Your task to perform on an android device: Clear the cart on amazon.com. Add "apple airpods" to the cart on amazon.com, then select checkout. Image 0: 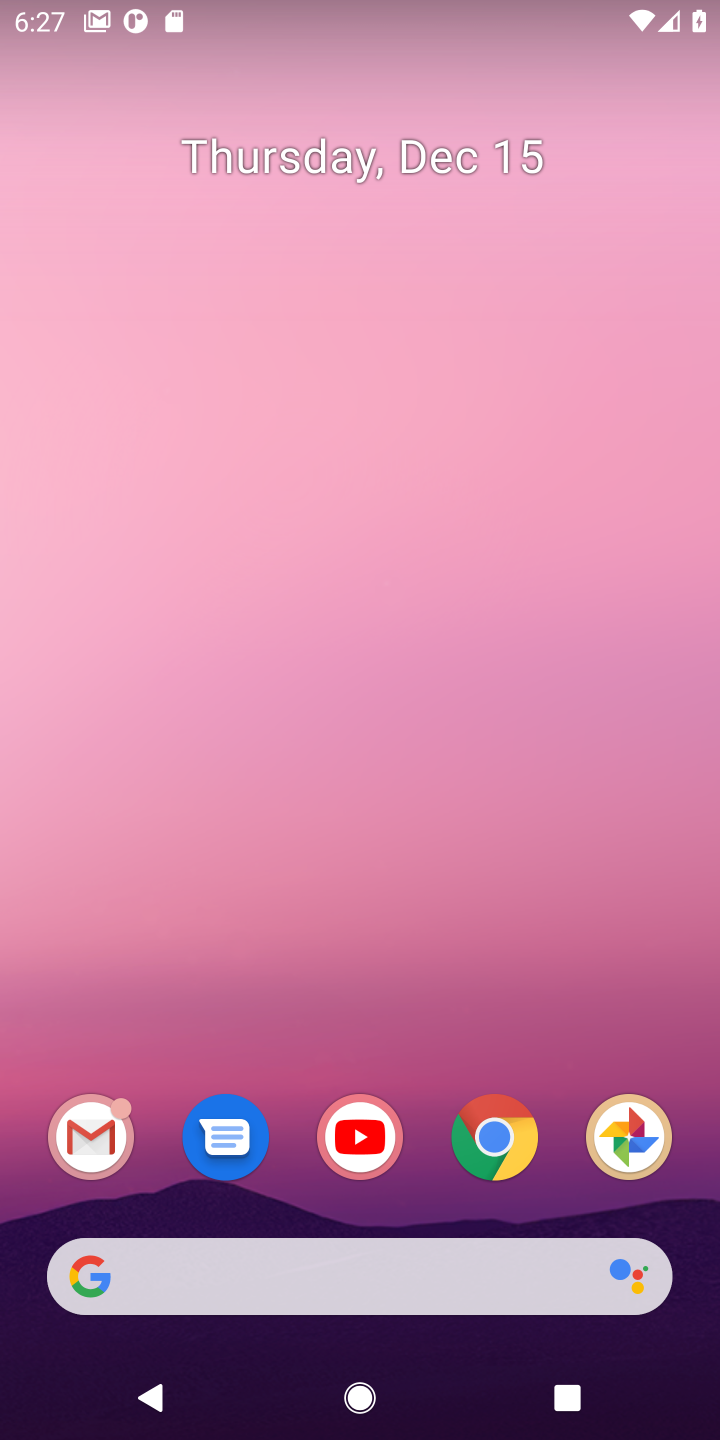
Step 0: drag from (293, 1148) to (319, 542)
Your task to perform on an android device: Clear the cart on amazon.com. Add "apple airpods" to the cart on amazon.com, then select checkout. Image 1: 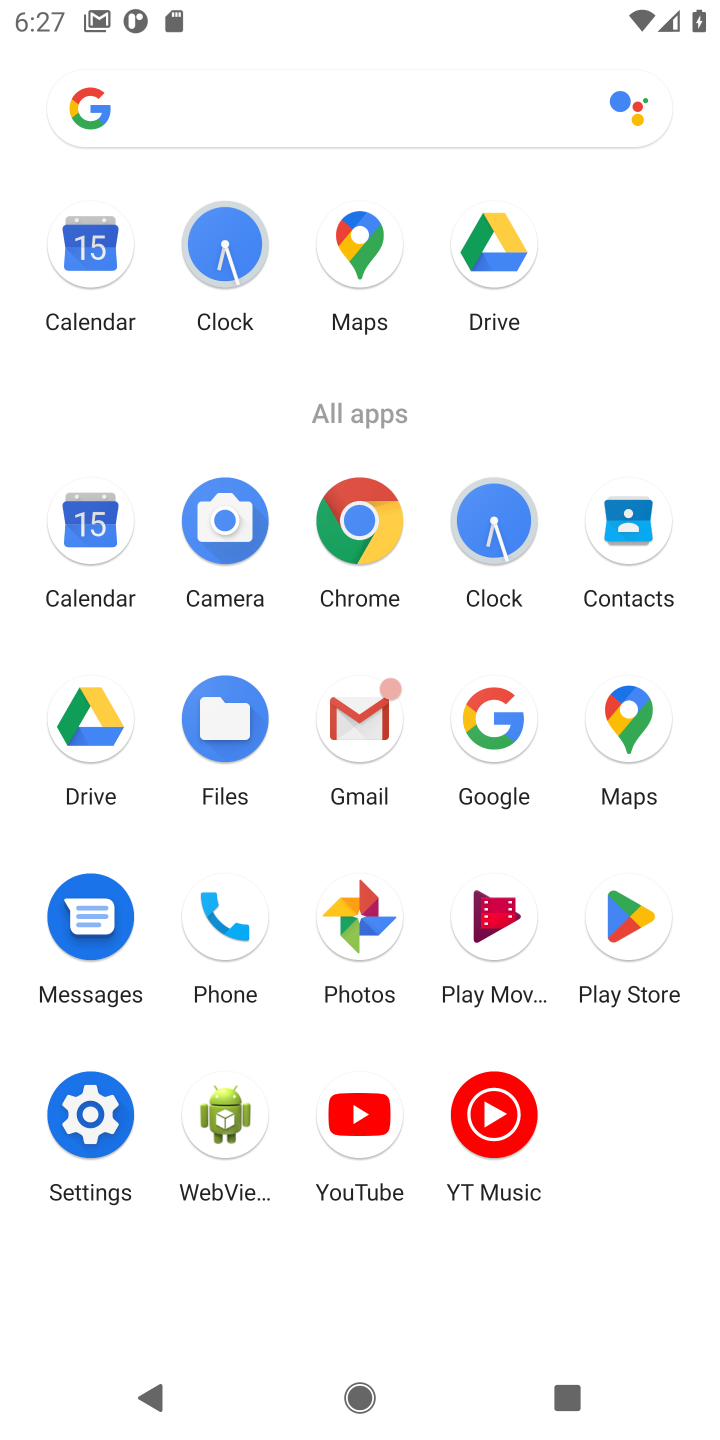
Step 1: click (470, 726)
Your task to perform on an android device: Clear the cart on amazon.com. Add "apple airpods" to the cart on amazon.com, then select checkout. Image 2: 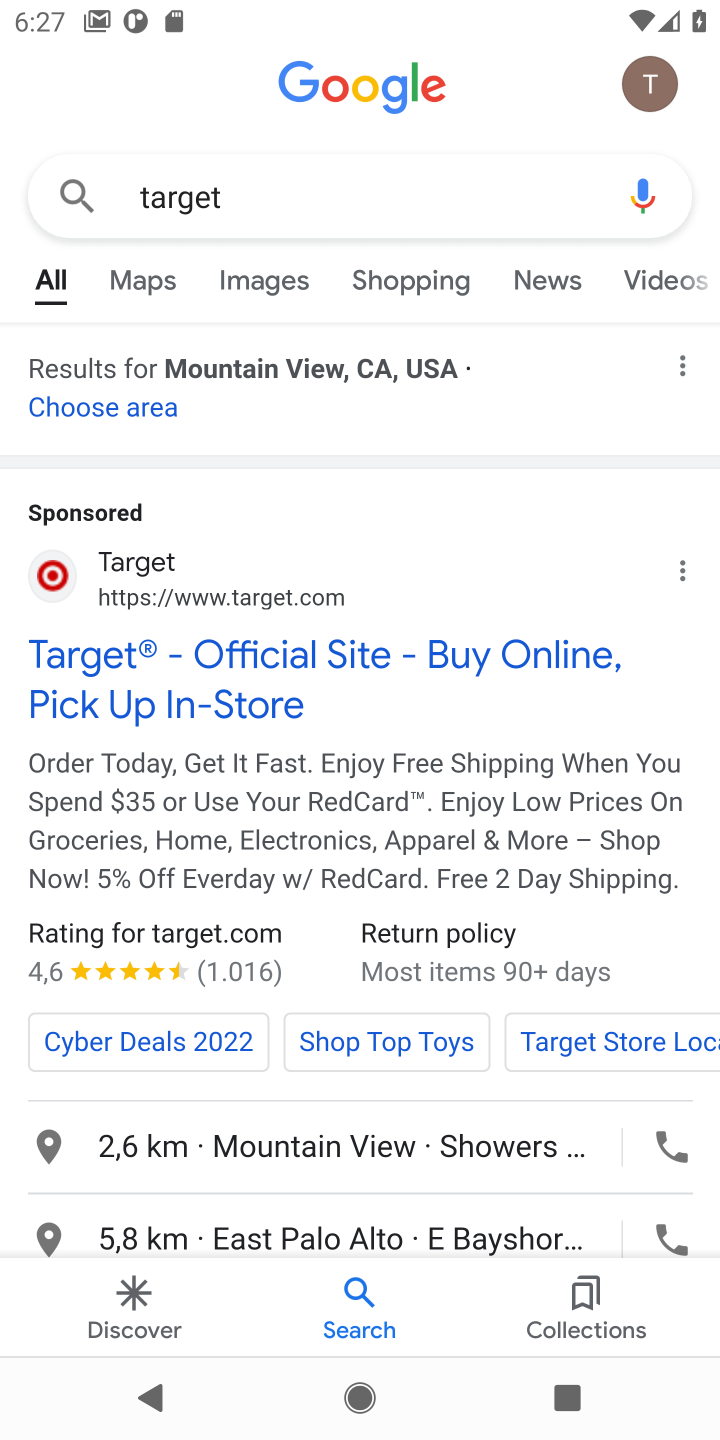
Step 2: click (190, 204)
Your task to perform on an android device: Clear the cart on amazon.com. Add "apple airpods" to the cart on amazon.com, then select checkout. Image 3: 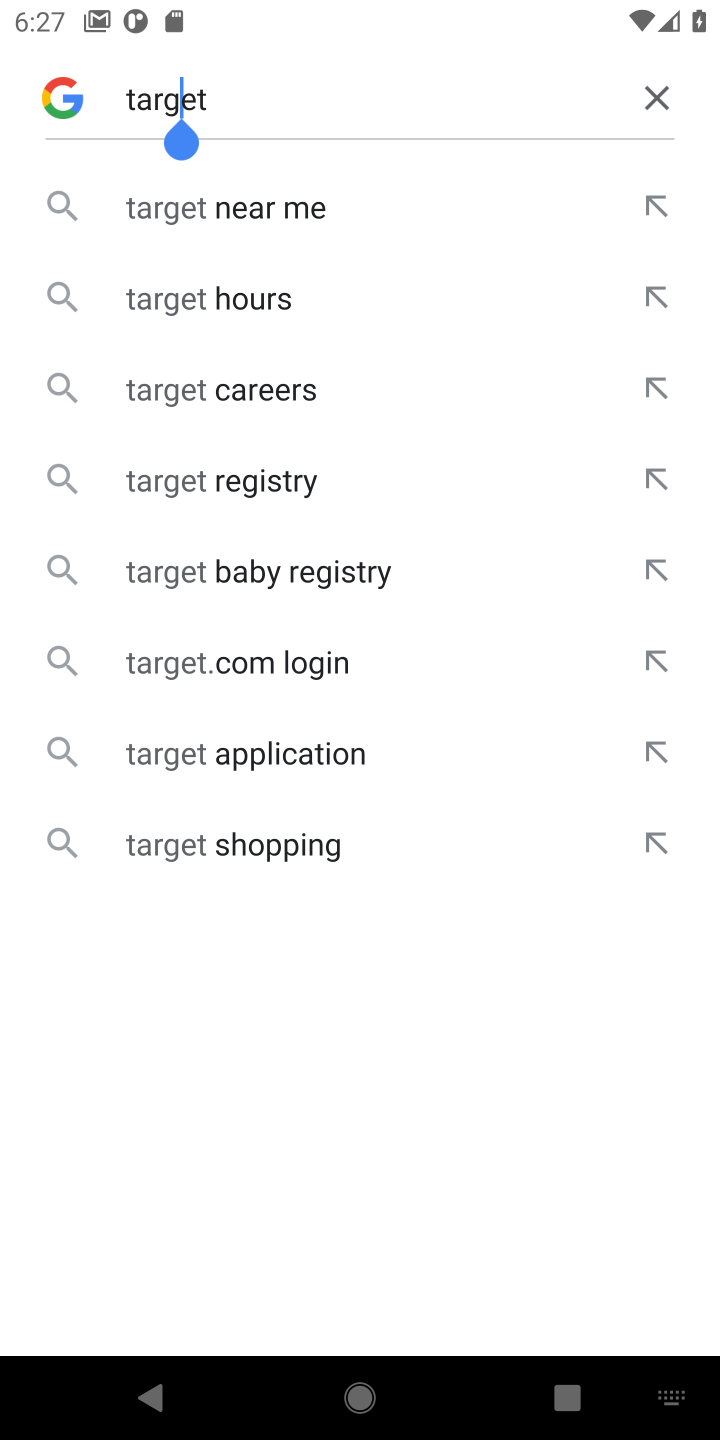
Step 3: click (653, 111)
Your task to perform on an android device: Clear the cart on amazon.com. Add "apple airpods" to the cart on amazon.com, then select checkout. Image 4: 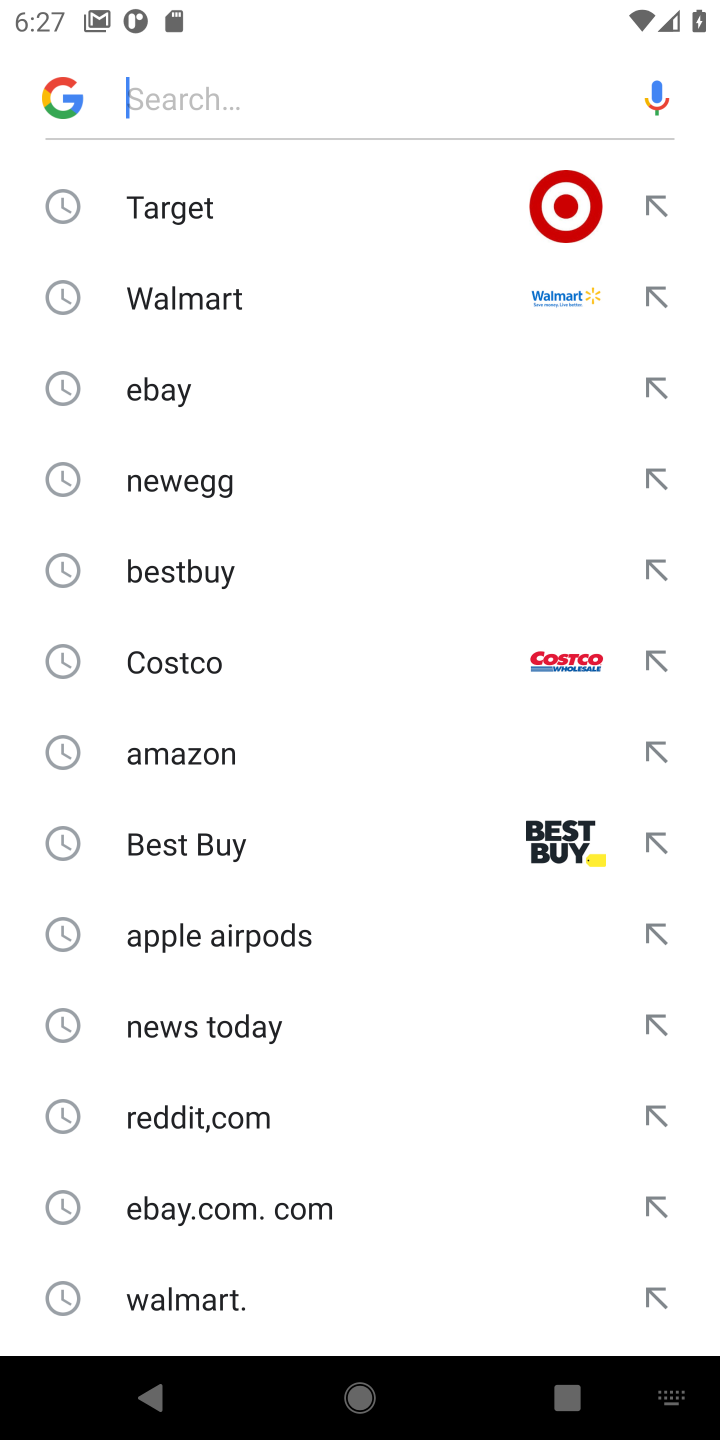
Step 4: click (172, 762)
Your task to perform on an android device: Clear the cart on amazon.com. Add "apple airpods" to the cart on amazon.com, then select checkout. Image 5: 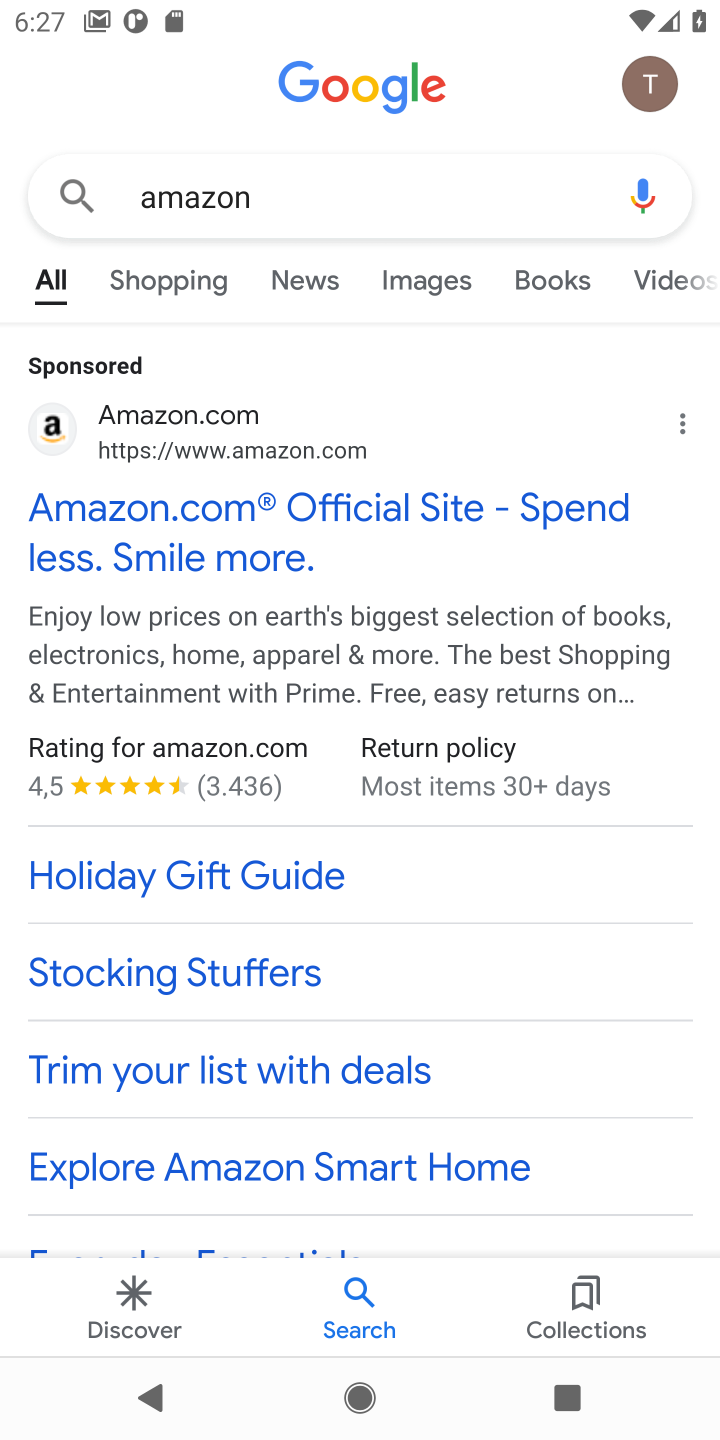
Step 5: click (178, 547)
Your task to perform on an android device: Clear the cart on amazon.com. Add "apple airpods" to the cart on amazon.com, then select checkout. Image 6: 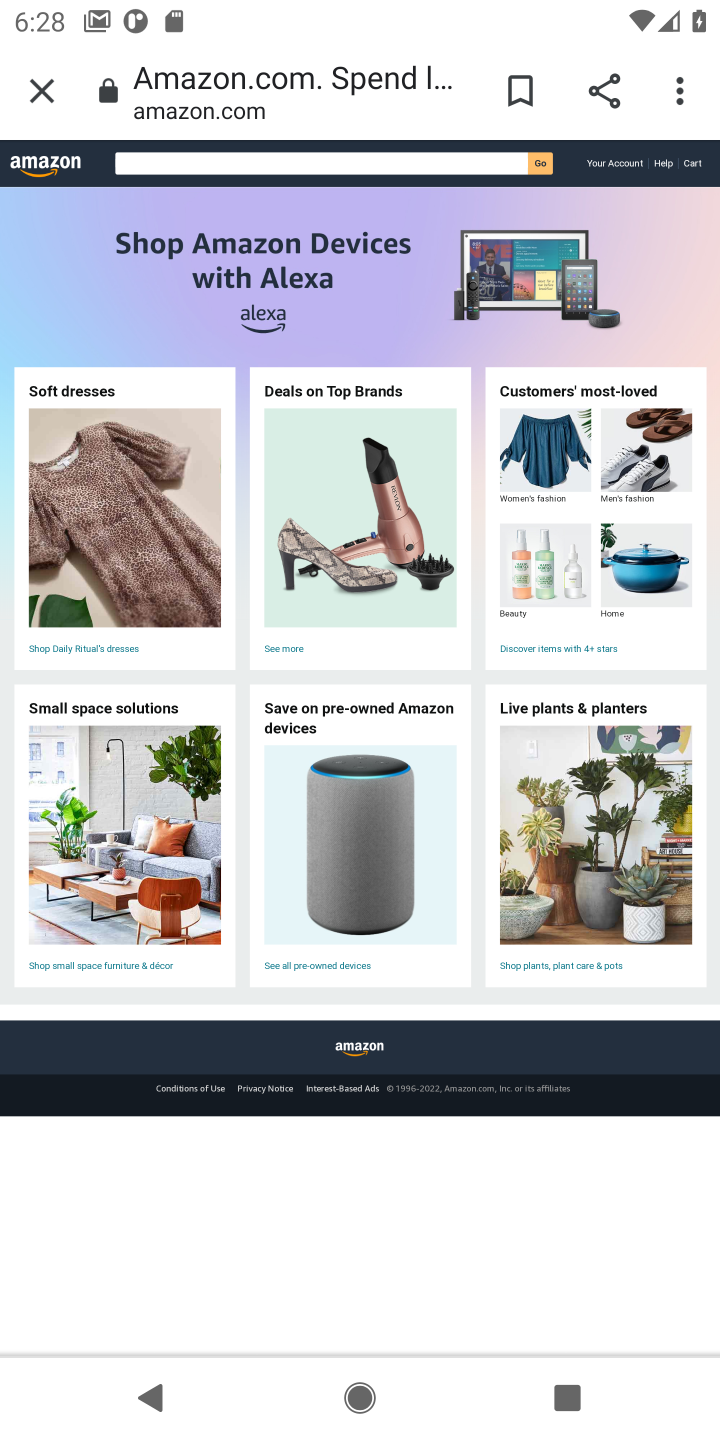
Step 6: click (186, 171)
Your task to perform on an android device: Clear the cart on amazon.com. Add "apple airpods" to the cart on amazon.com, then select checkout. Image 7: 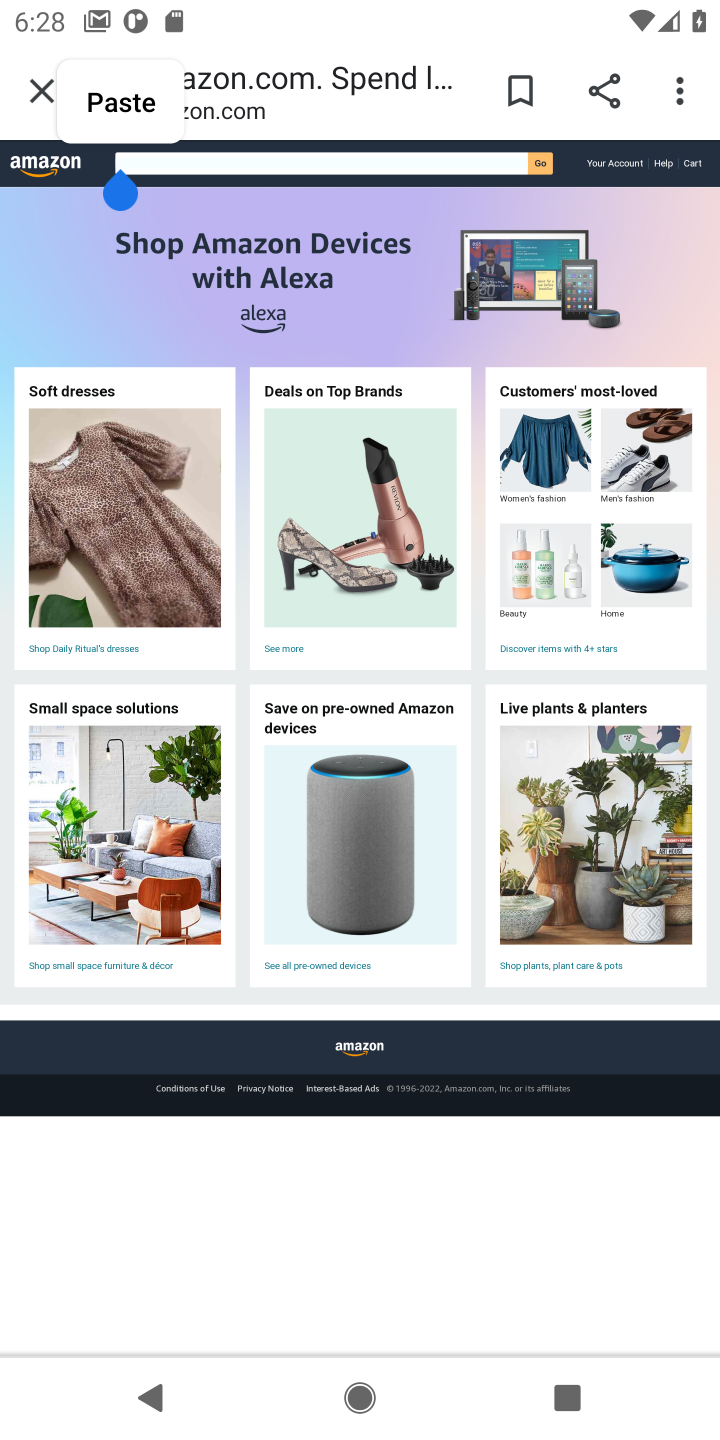
Step 7: type "apple airpods"
Your task to perform on an android device: Clear the cart on amazon.com. Add "apple airpods" to the cart on amazon.com, then select checkout. Image 8: 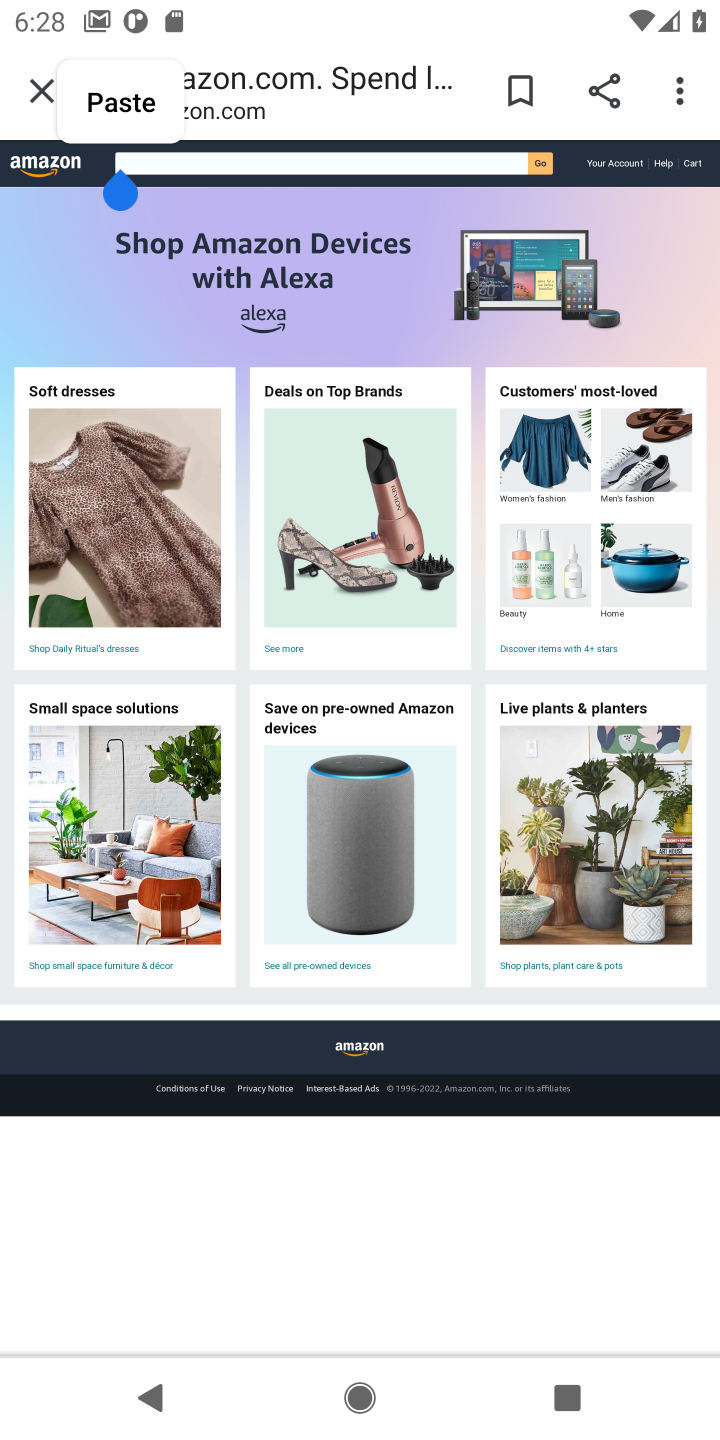
Step 8: click (539, 159)
Your task to perform on an android device: Clear the cart on amazon.com. Add "apple airpods" to the cart on amazon.com, then select checkout. Image 9: 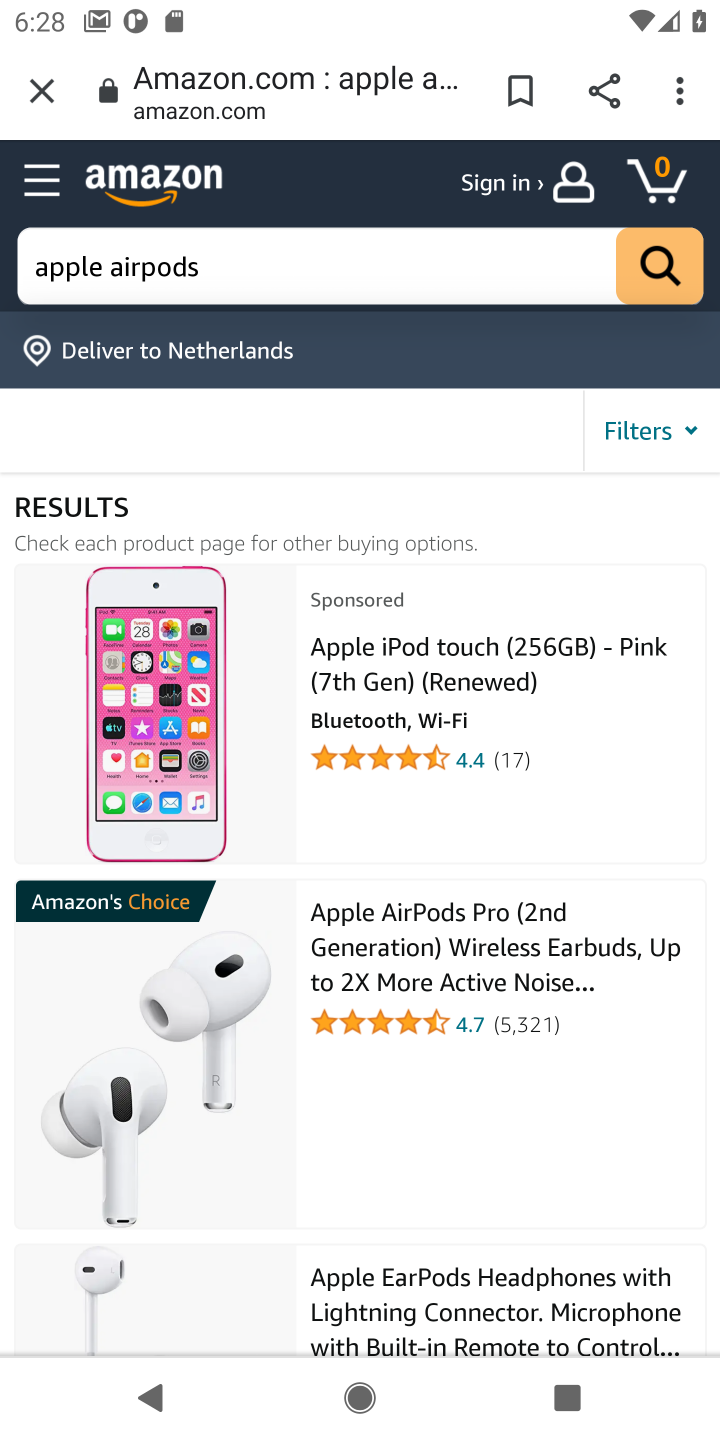
Step 9: click (474, 971)
Your task to perform on an android device: Clear the cart on amazon.com. Add "apple airpods" to the cart on amazon.com, then select checkout. Image 10: 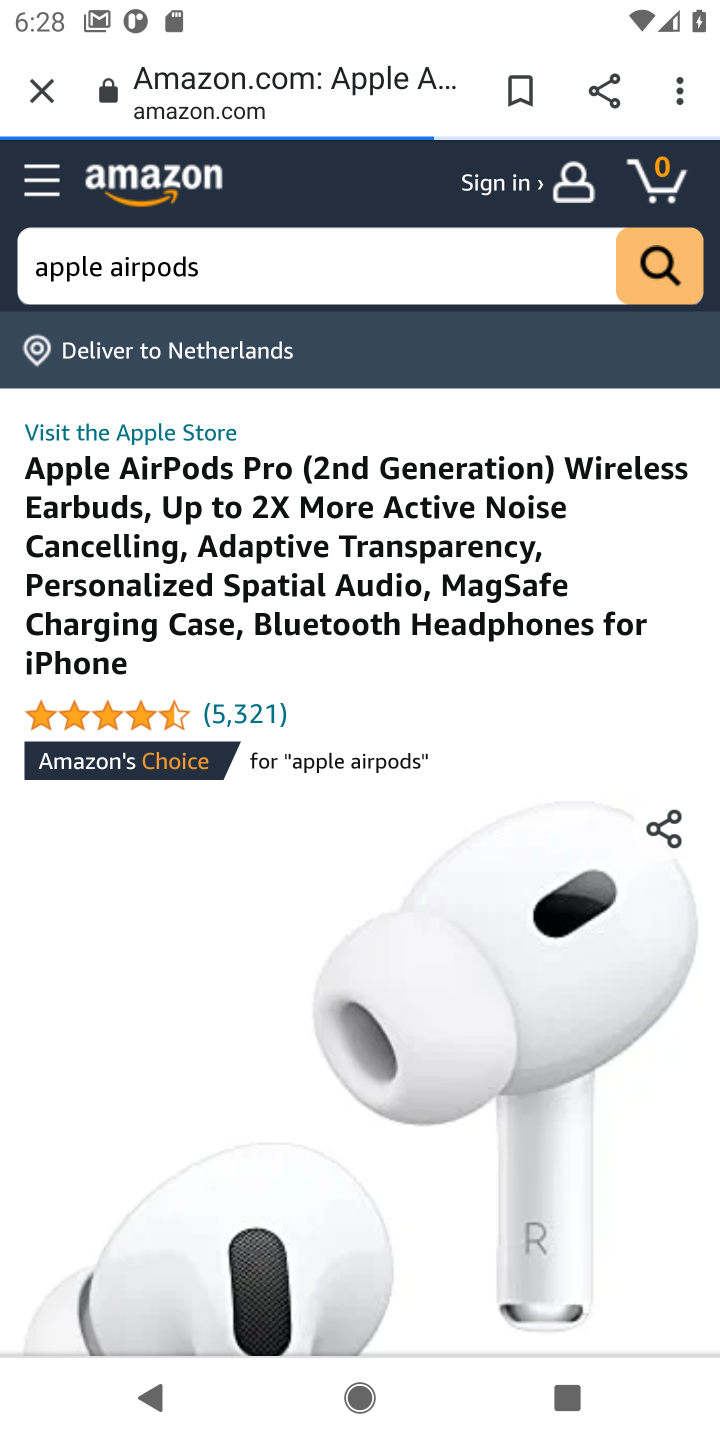
Step 10: task complete